Your task to perform on an android device: change alarm snooze length Image 0: 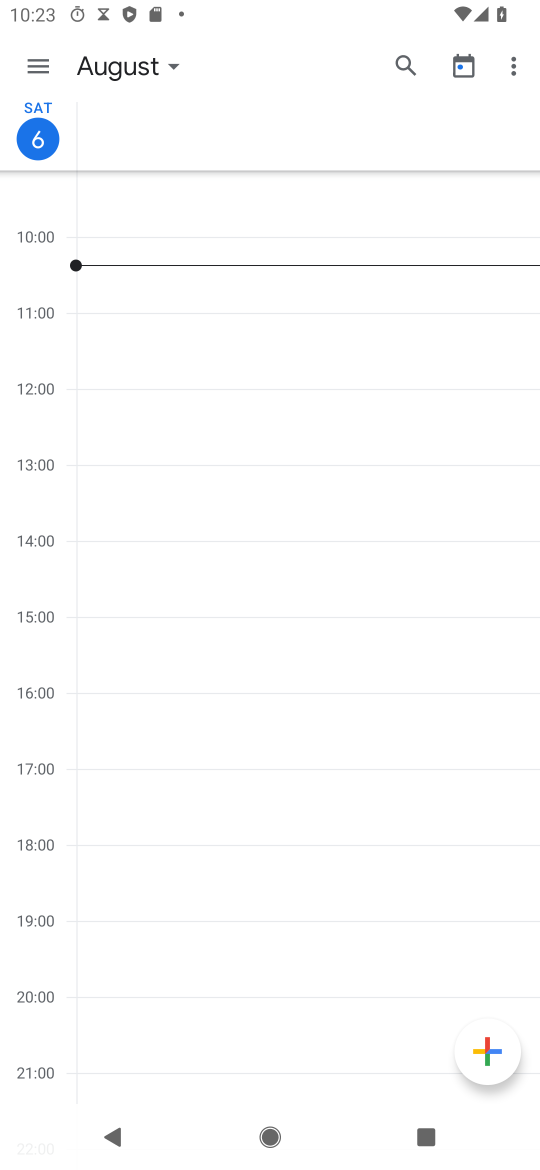
Step 0: press back button
Your task to perform on an android device: change alarm snooze length Image 1: 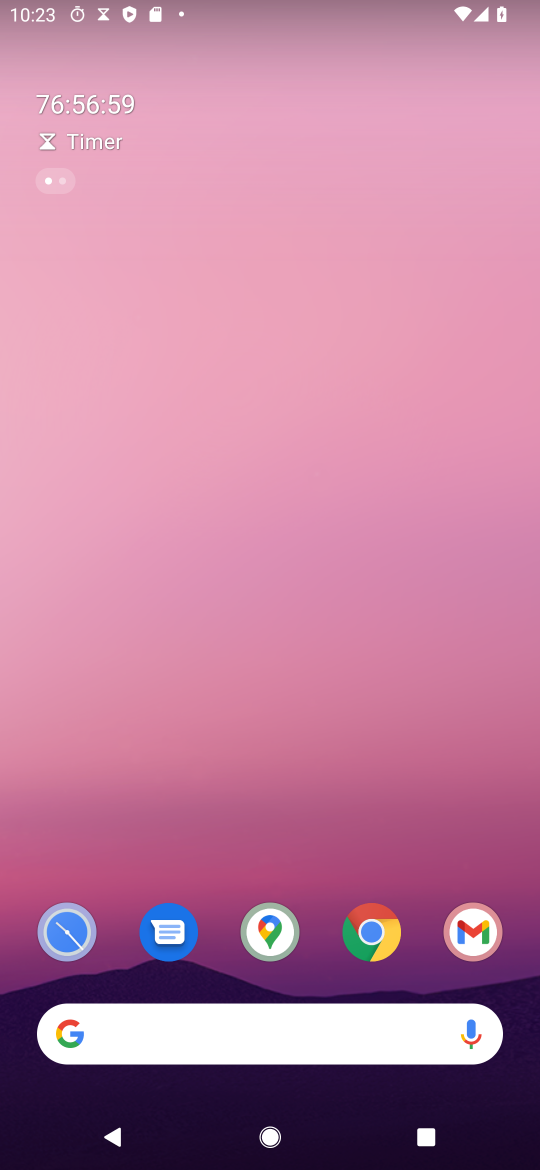
Step 1: click (78, 917)
Your task to perform on an android device: change alarm snooze length Image 2: 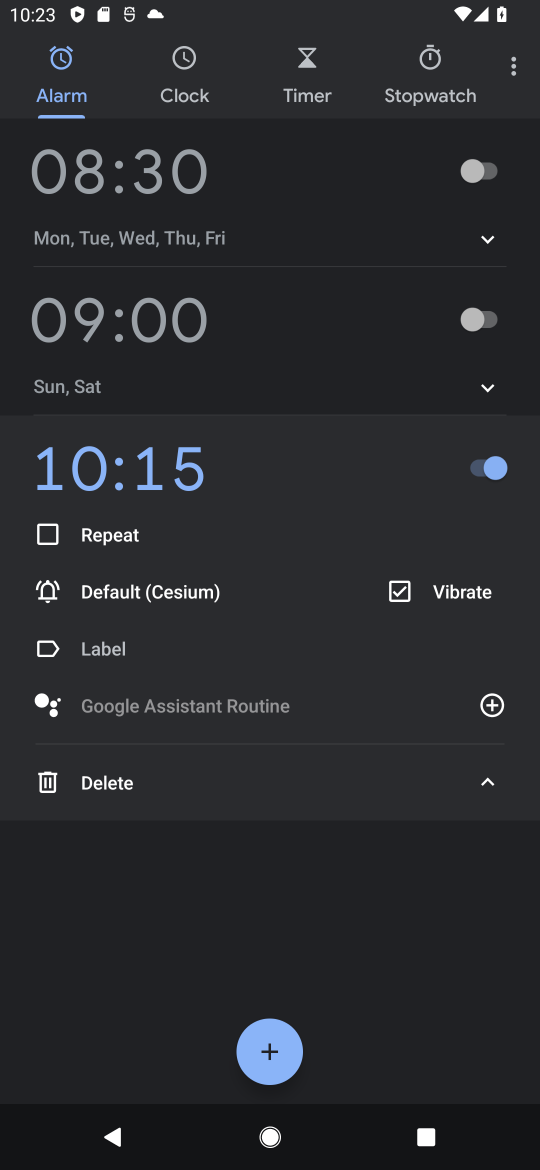
Step 2: click (511, 78)
Your task to perform on an android device: change alarm snooze length Image 3: 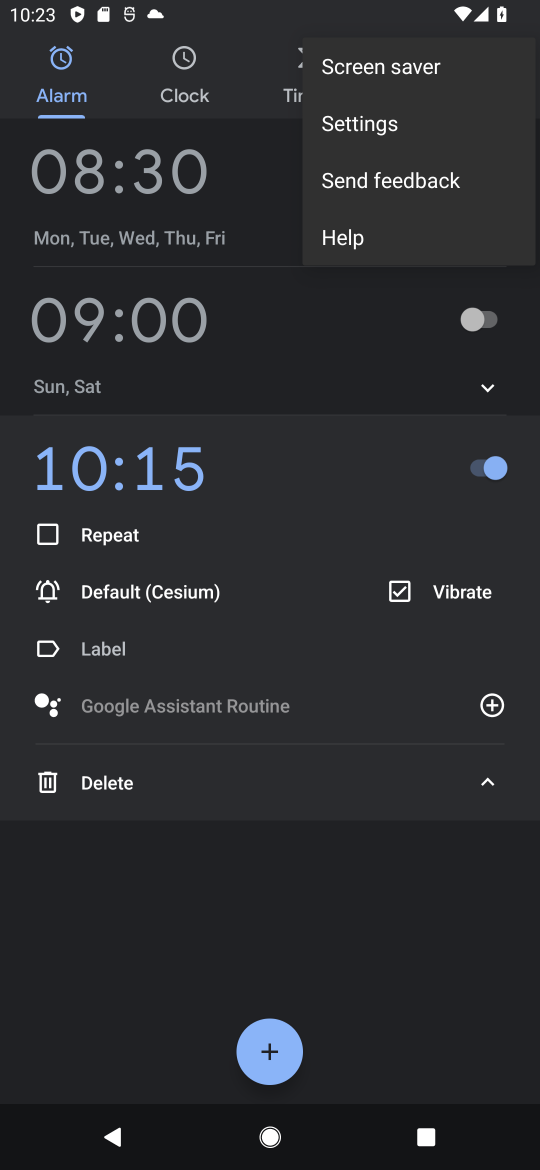
Step 3: click (415, 142)
Your task to perform on an android device: change alarm snooze length Image 4: 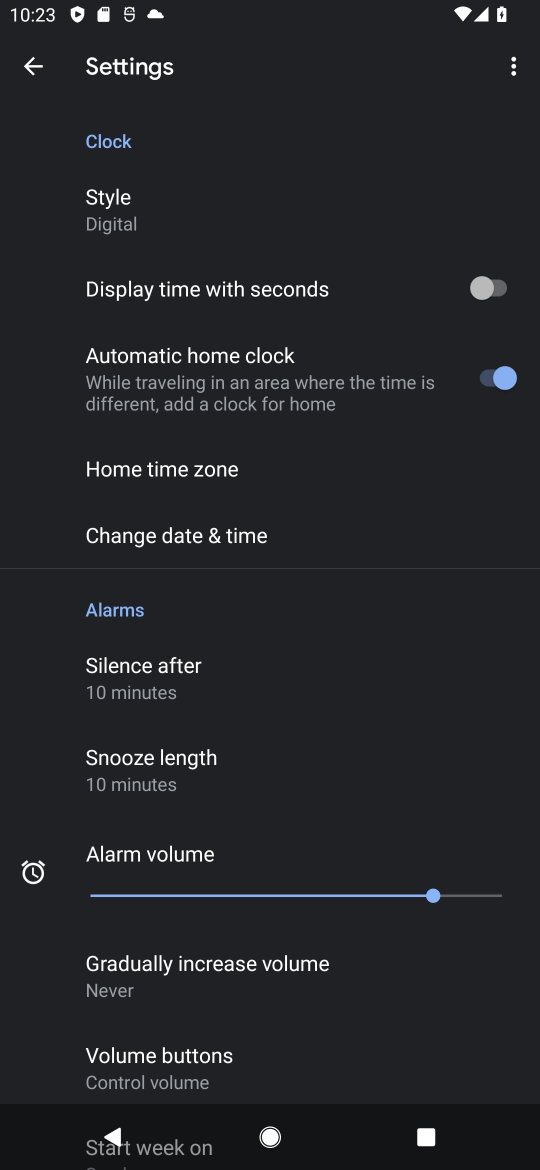
Step 4: click (261, 756)
Your task to perform on an android device: change alarm snooze length Image 5: 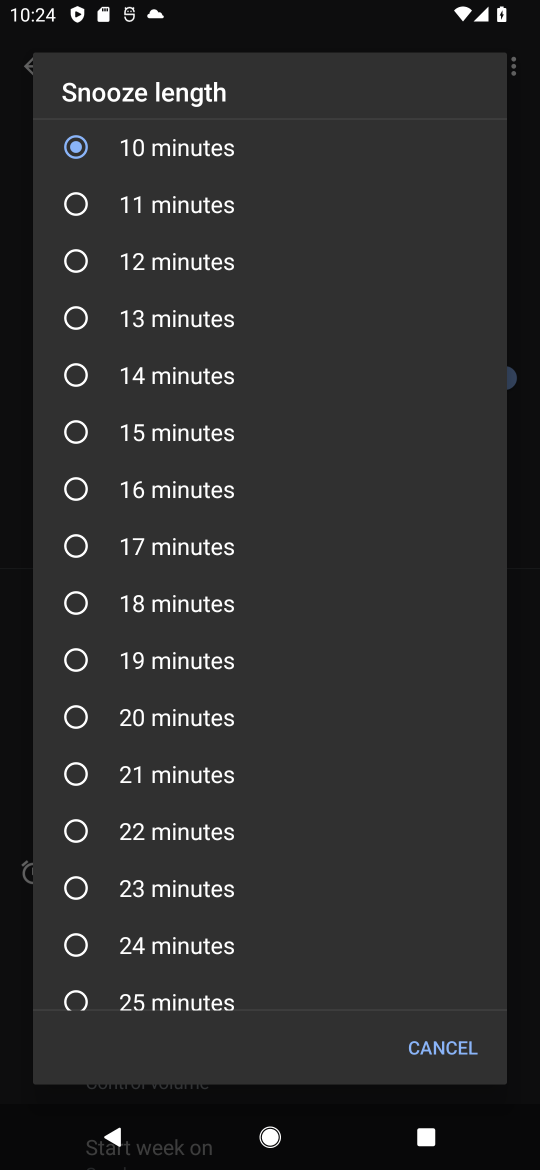
Step 5: click (246, 732)
Your task to perform on an android device: change alarm snooze length Image 6: 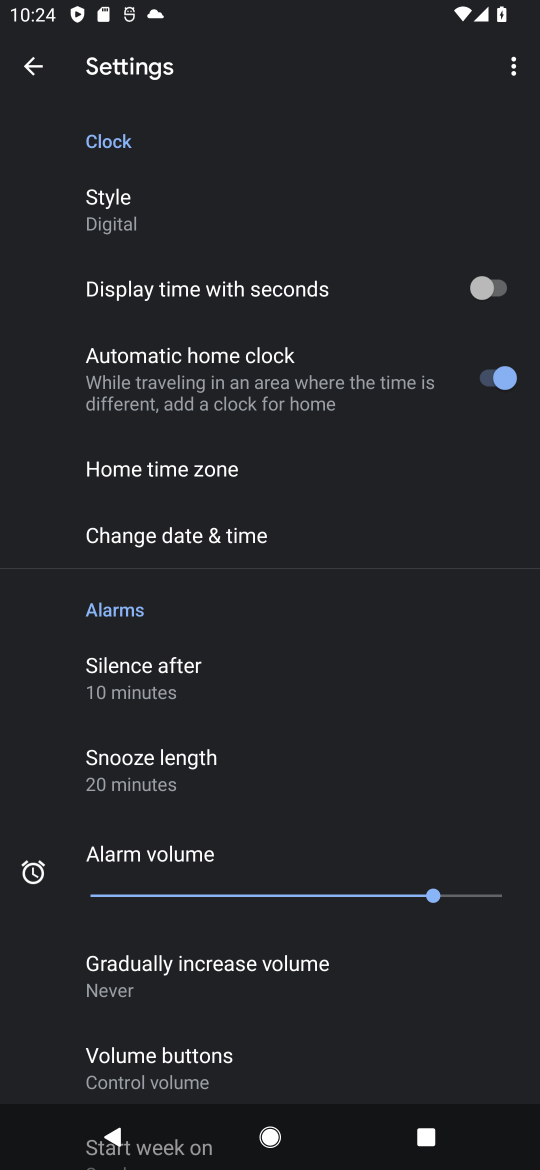
Step 6: task complete